Your task to perform on an android device: empty trash in the gmail app Image 0: 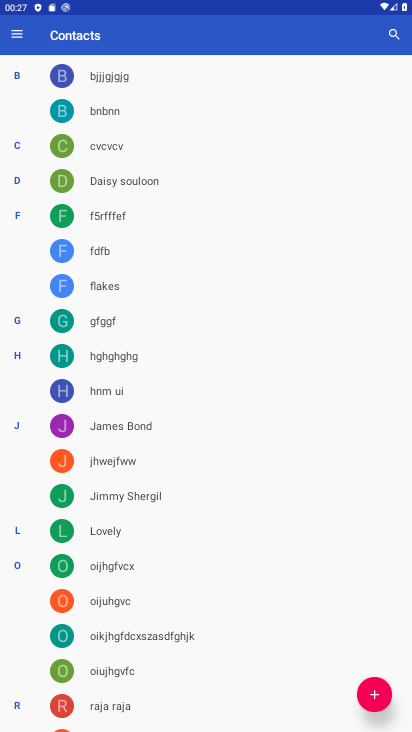
Step 0: press home button
Your task to perform on an android device: empty trash in the gmail app Image 1: 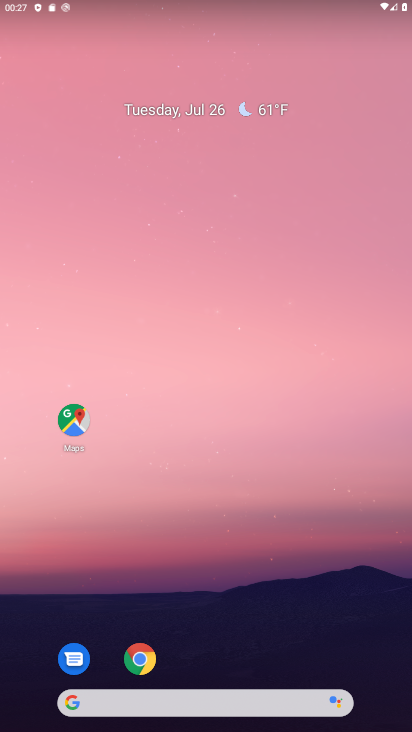
Step 1: drag from (295, 592) to (276, 2)
Your task to perform on an android device: empty trash in the gmail app Image 2: 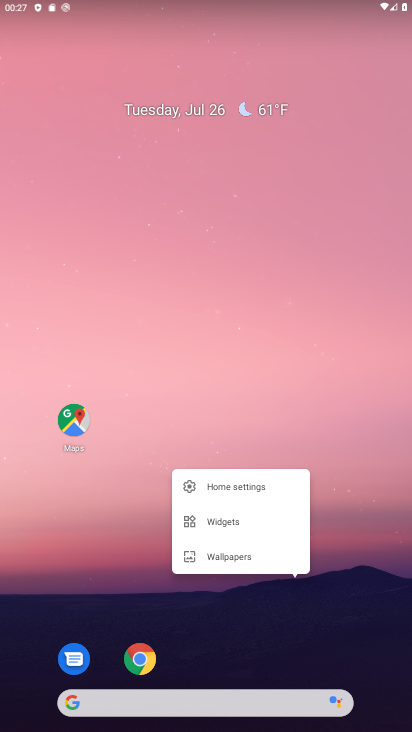
Step 2: click (311, 381)
Your task to perform on an android device: empty trash in the gmail app Image 3: 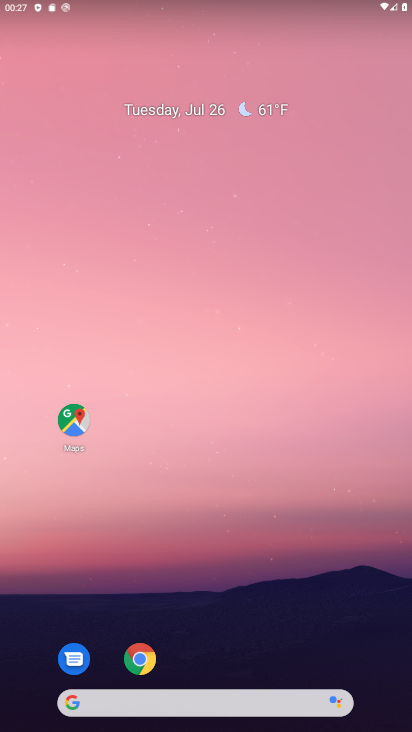
Step 3: drag from (248, 466) to (227, 76)
Your task to perform on an android device: empty trash in the gmail app Image 4: 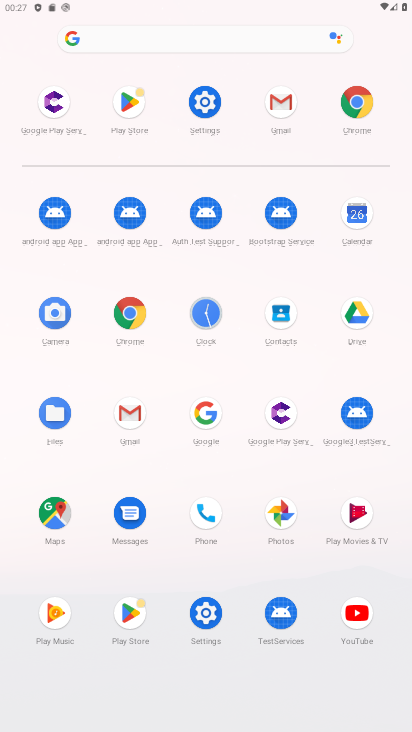
Step 4: click (276, 101)
Your task to perform on an android device: empty trash in the gmail app Image 5: 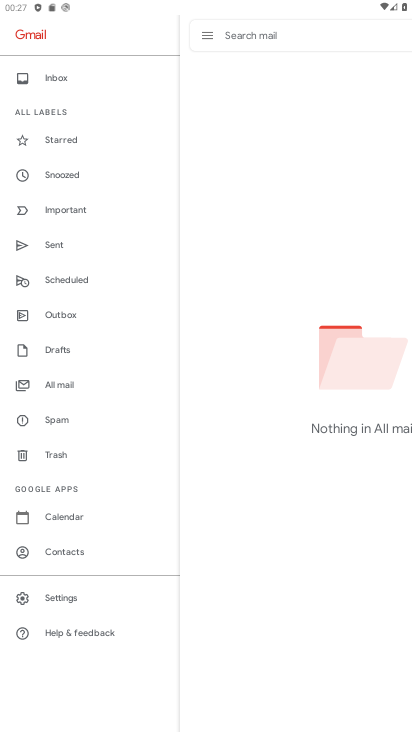
Step 5: click (59, 450)
Your task to perform on an android device: empty trash in the gmail app Image 6: 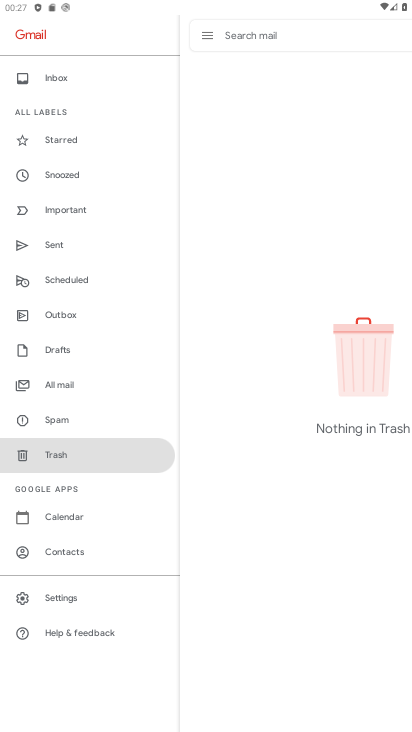
Step 6: task complete